Your task to perform on an android device: Go to Android settings Image 0: 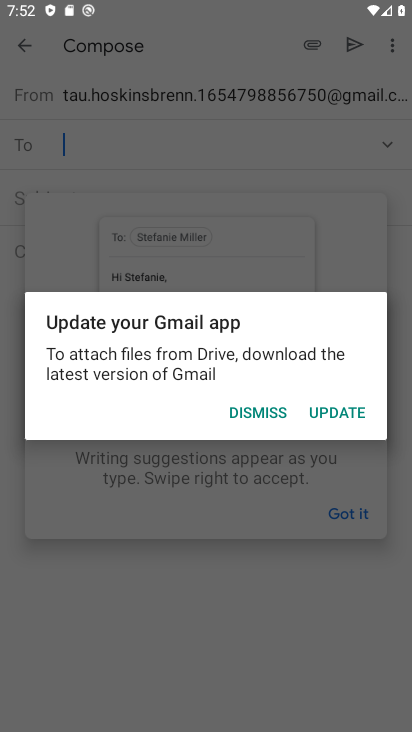
Step 0: press home button
Your task to perform on an android device: Go to Android settings Image 1: 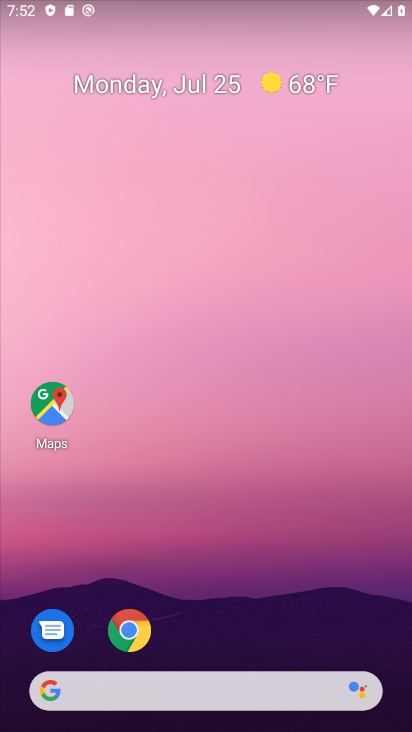
Step 1: drag from (178, 686) to (371, 107)
Your task to perform on an android device: Go to Android settings Image 2: 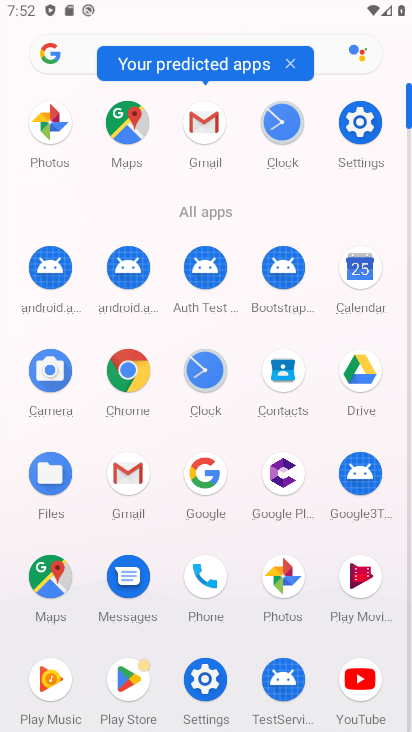
Step 2: click (356, 118)
Your task to perform on an android device: Go to Android settings Image 3: 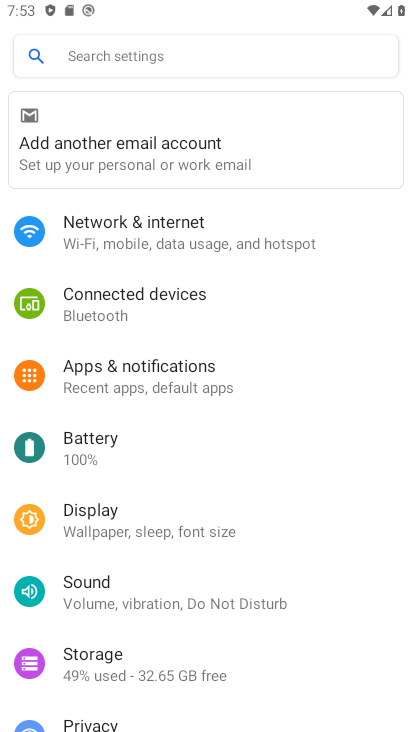
Step 3: task complete